Your task to perform on an android device: open device folders in google photos Image 0: 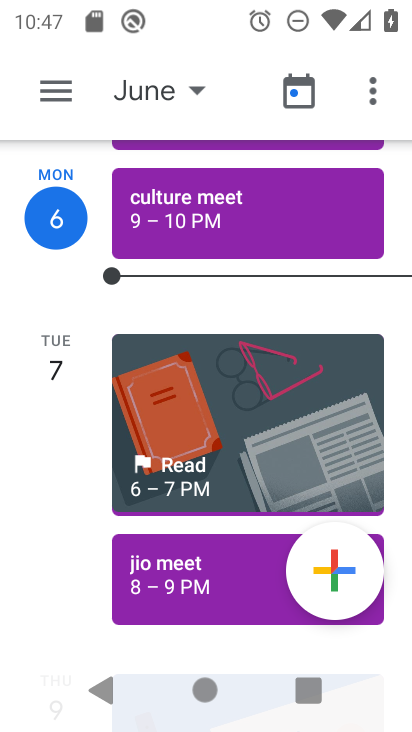
Step 0: press home button
Your task to perform on an android device: open device folders in google photos Image 1: 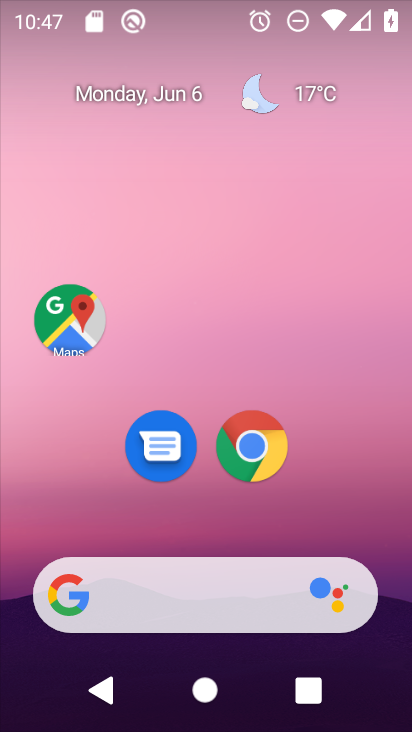
Step 1: drag from (182, 199) to (191, 13)
Your task to perform on an android device: open device folders in google photos Image 2: 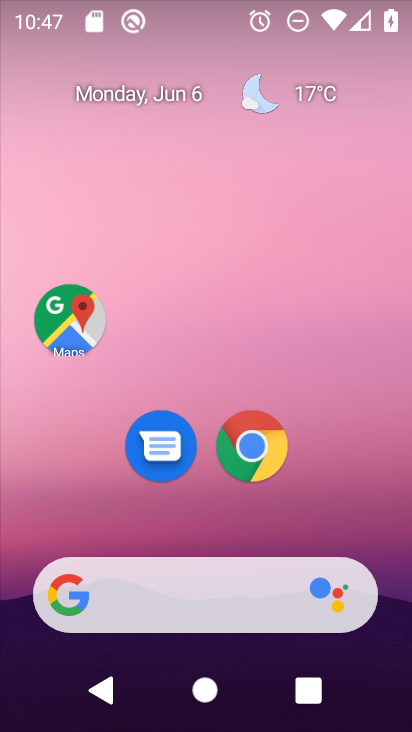
Step 2: drag from (208, 517) to (170, 114)
Your task to perform on an android device: open device folders in google photos Image 3: 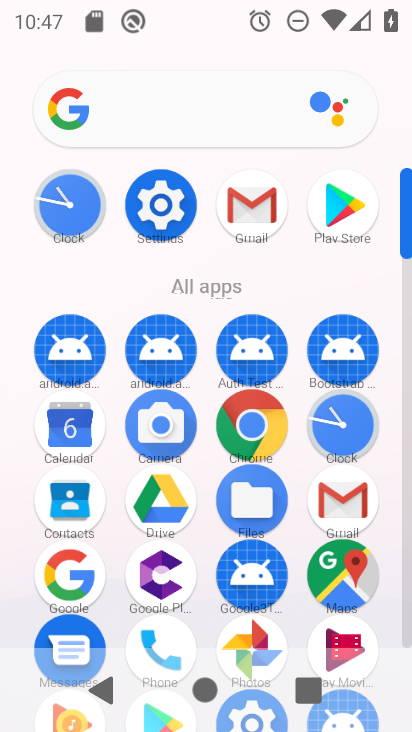
Step 3: drag from (210, 505) to (369, 297)
Your task to perform on an android device: open device folders in google photos Image 4: 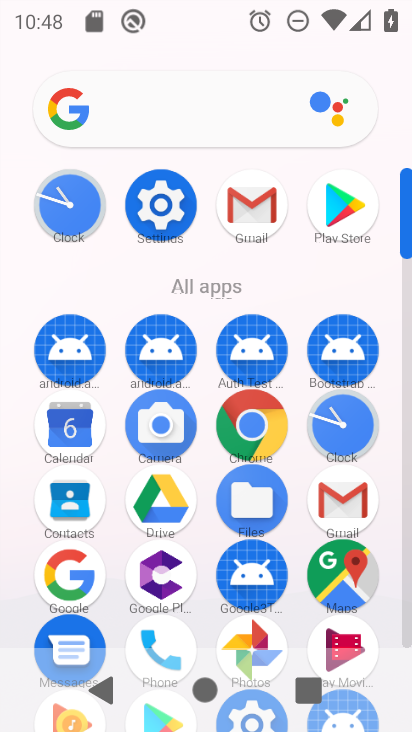
Step 4: drag from (251, 432) to (249, 161)
Your task to perform on an android device: open device folders in google photos Image 5: 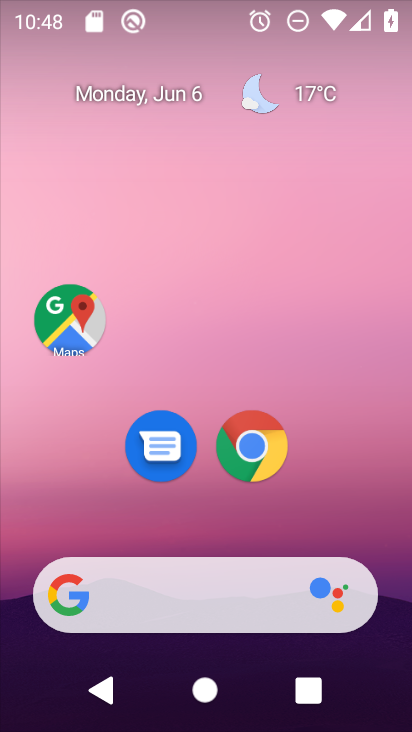
Step 5: click (239, 229)
Your task to perform on an android device: open device folders in google photos Image 6: 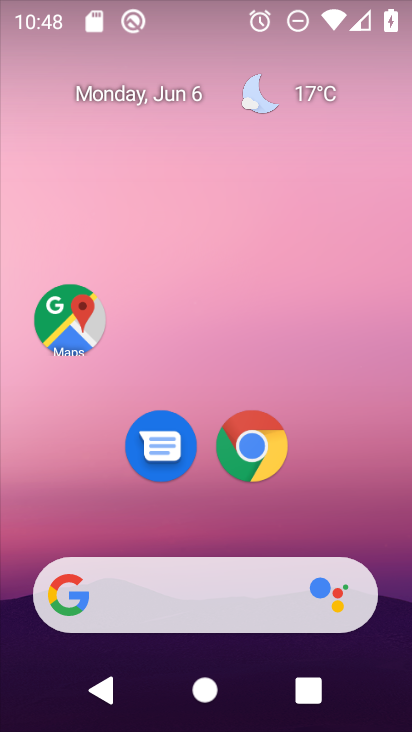
Step 6: drag from (204, 391) to (389, 267)
Your task to perform on an android device: open device folders in google photos Image 7: 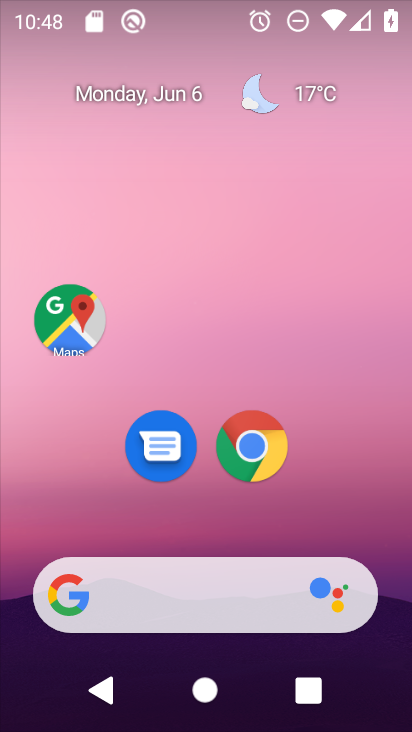
Step 7: drag from (210, 414) to (228, 30)
Your task to perform on an android device: open device folders in google photos Image 8: 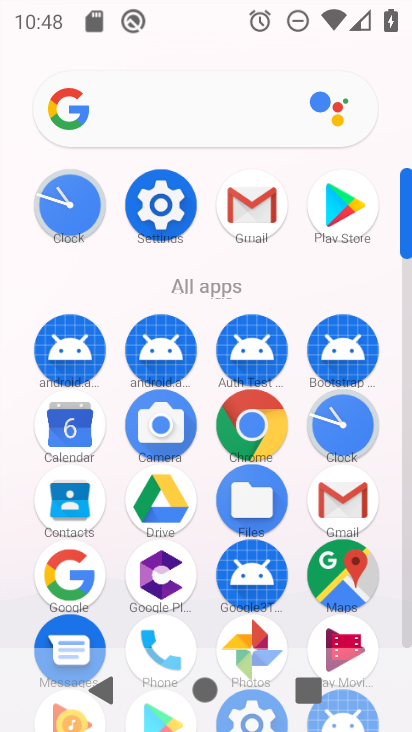
Step 8: drag from (202, 518) to (226, 21)
Your task to perform on an android device: open device folders in google photos Image 9: 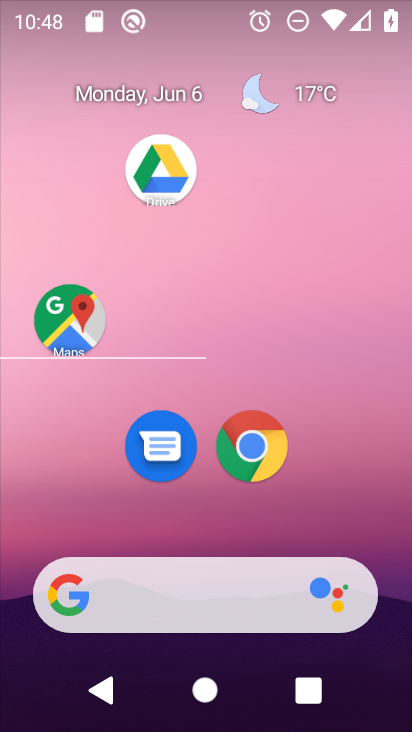
Step 9: drag from (243, 100) to (222, 8)
Your task to perform on an android device: open device folders in google photos Image 10: 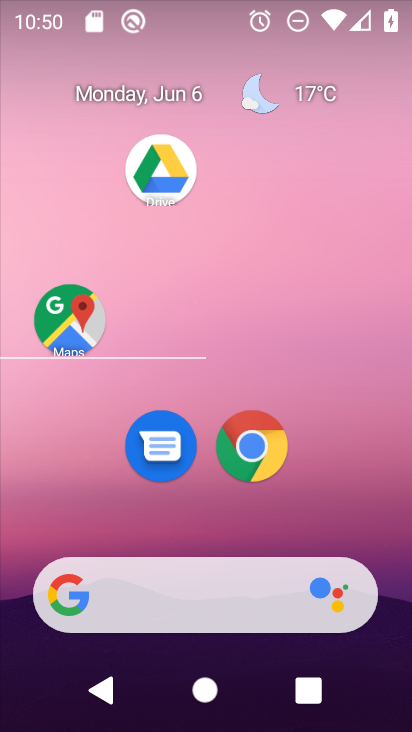
Step 10: drag from (201, 488) to (173, 4)
Your task to perform on an android device: open device folders in google photos Image 11: 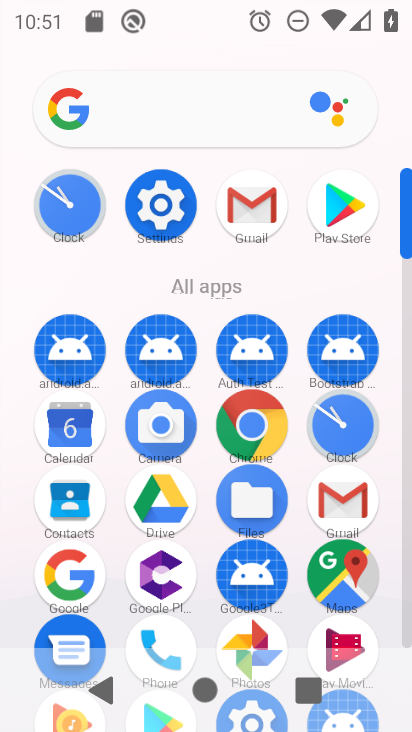
Step 11: click (254, 634)
Your task to perform on an android device: open device folders in google photos Image 12: 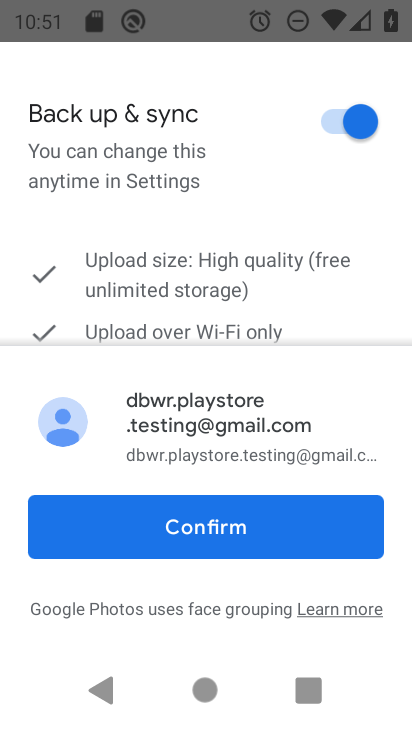
Step 12: click (252, 540)
Your task to perform on an android device: open device folders in google photos Image 13: 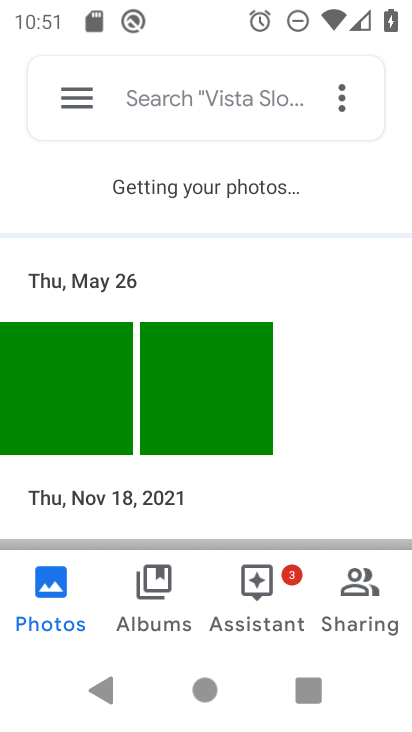
Step 13: click (110, 120)
Your task to perform on an android device: open device folders in google photos Image 14: 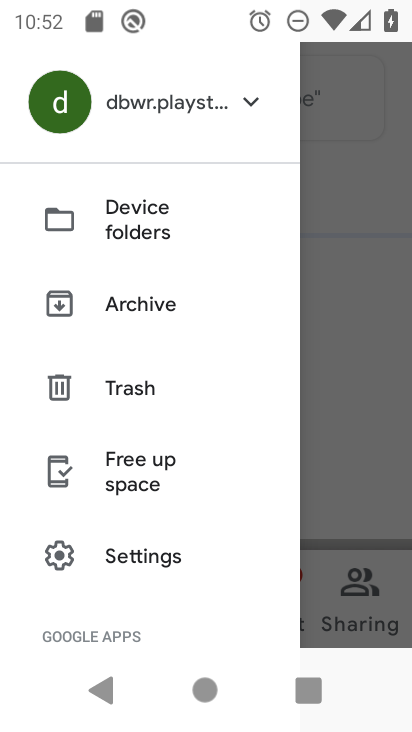
Step 14: click (123, 239)
Your task to perform on an android device: open device folders in google photos Image 15: 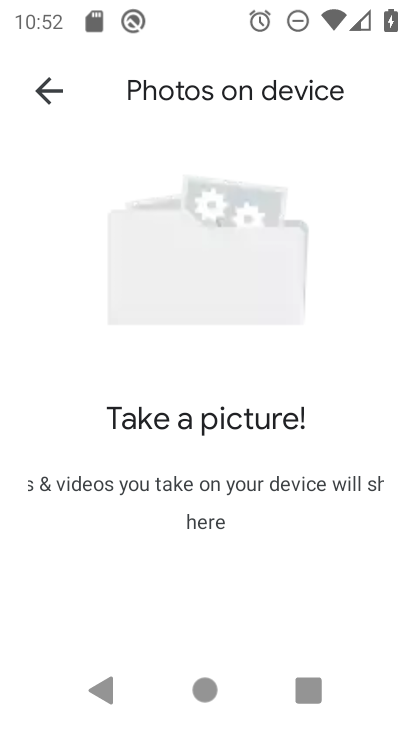
Step 15: task complete